Your task to perform on an android device: snooze an email in the gmail app Image 0: 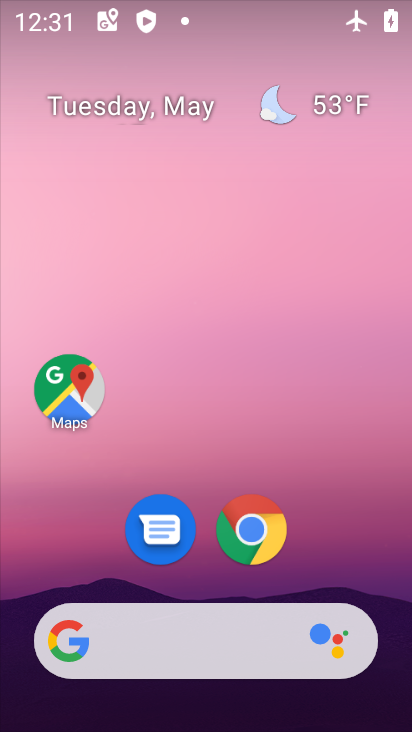
Step 0: drag from (189, 721) to (182, 167)
Your task to perform on an android device: snooze an email in the gmail app Image 1: 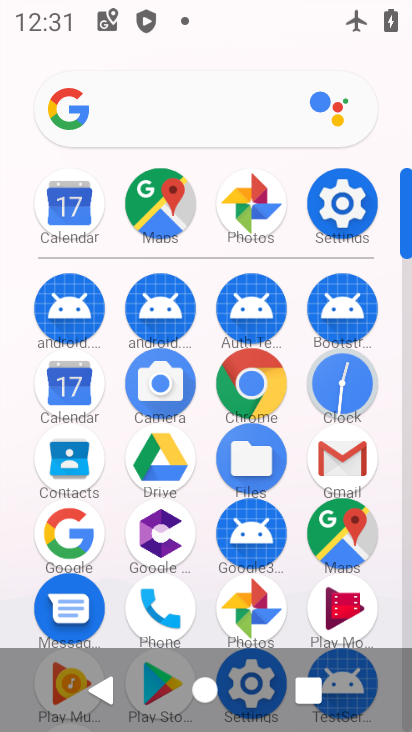
Step 1: click (344, 449)
Your task to perform on an android device: snooze an email in the gmail app Image 2: 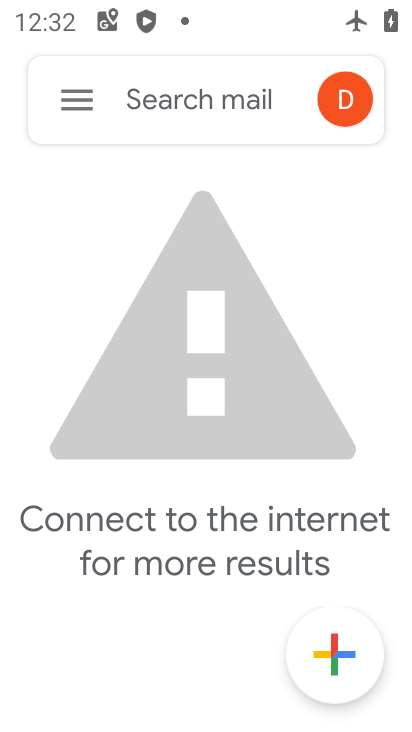
Step 2: task complete